Your task to perform on an android device: Go to internet settings Image 0: 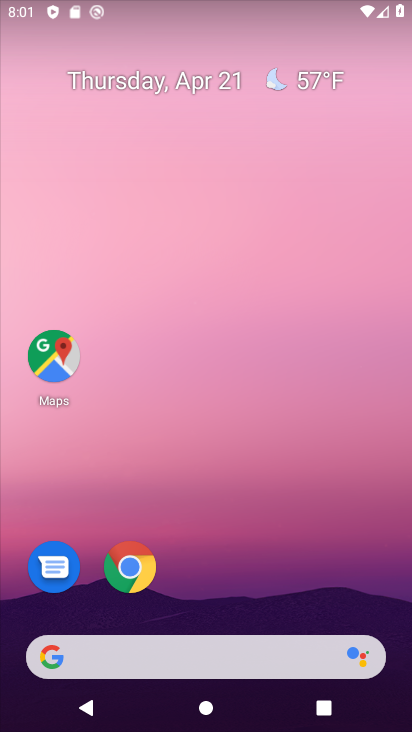
Step 0: drag from (210, 581) to (247, 82)
Your task to perform on an android device: Go to internet settings Image 1: 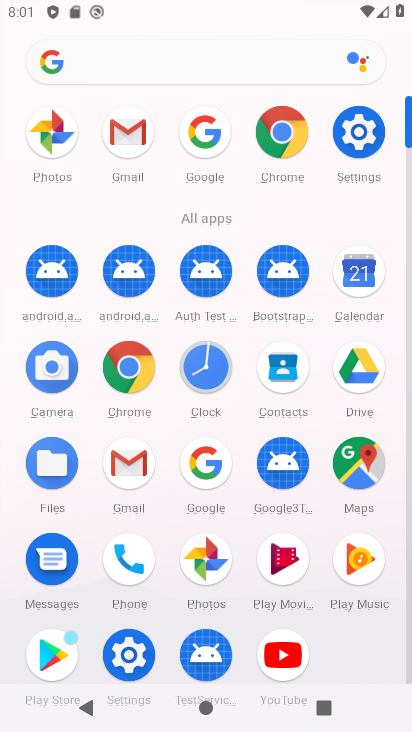
Step 1: click (342, 134)
Your task to perform on an android device: Go to internet settings Image 2: 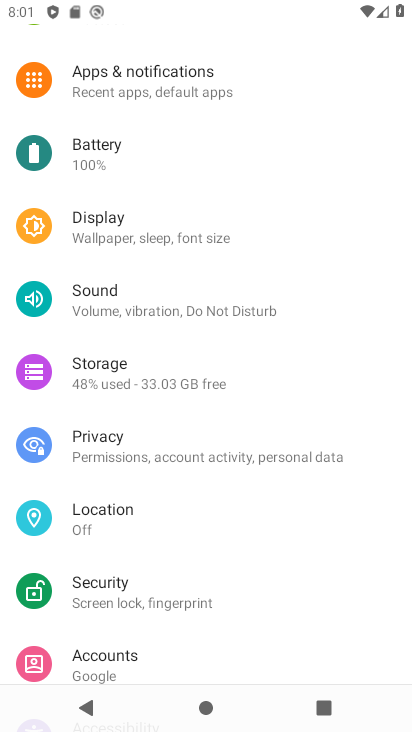
Step 2: drag from (195, 195) to (169, 521)
Your task to perform on an android device: Go to internet settings Image 3: 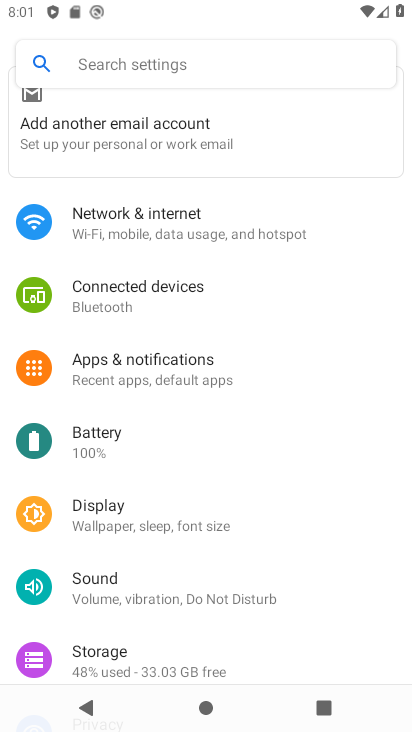
Step 3: click (157, 235)
Your task to perform on an android device: Go to internet settings Image 4: 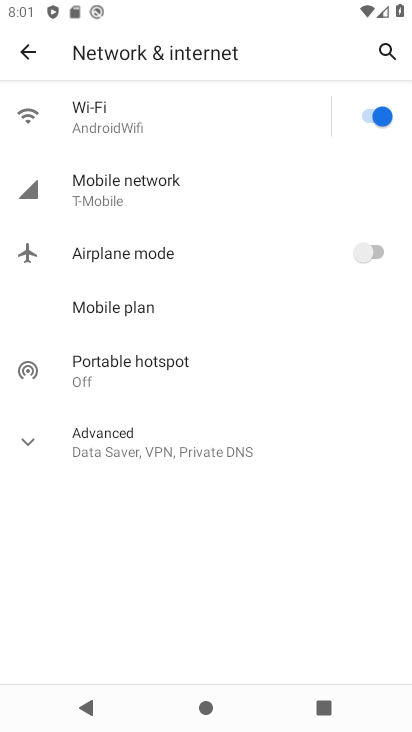
Step 4: task complete